Your task to perform on an android device: Open CNN.com Image 0: 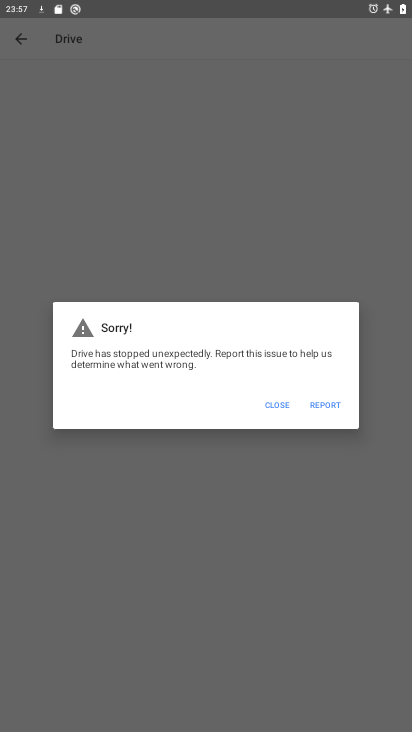
Step 0: press home button
Your task to perform on an android device: Open CNN.com Image 1: 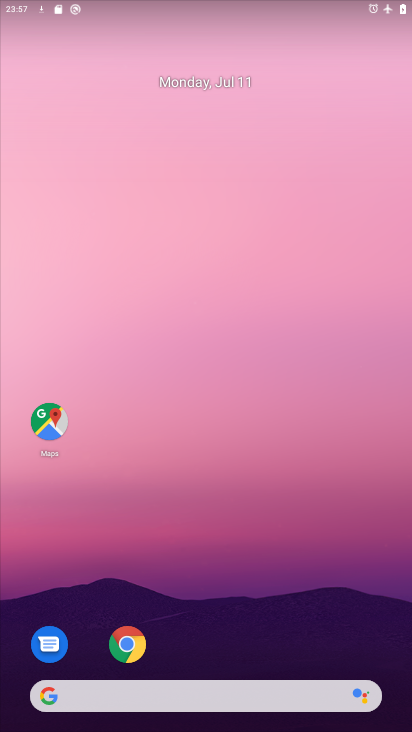
Step 1: drag from (243, 634) to (238, 126)
Your task to perform on an android device: Open CNN.com Image 2: 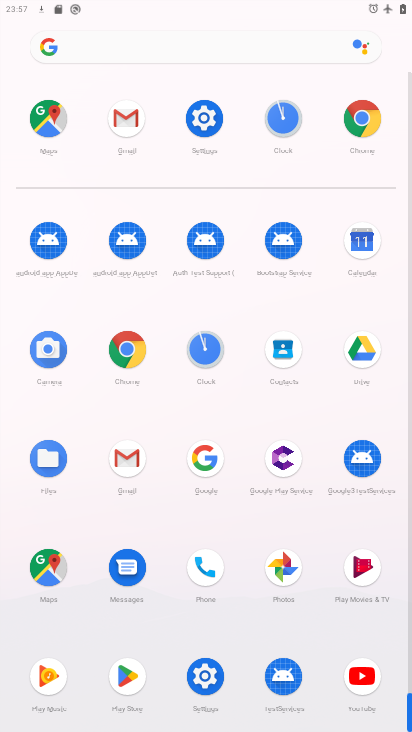
Step 2: click (358, 108)
Your task to perform on an android device: Open CNN.com Image 3: 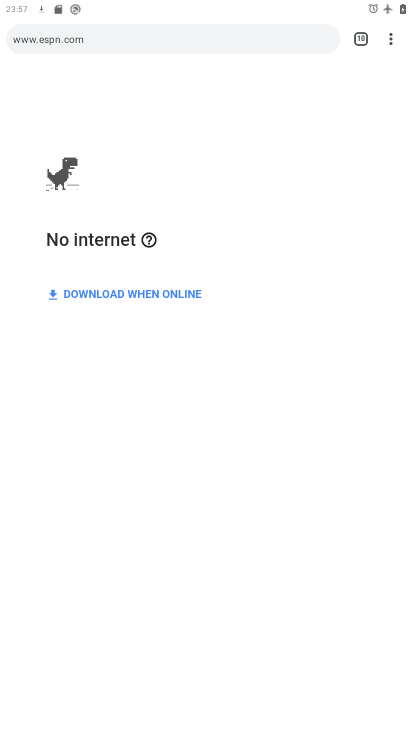
Step 3: click (388, 28)
Your task to perform on an android device: Open CNN.com Image 4: 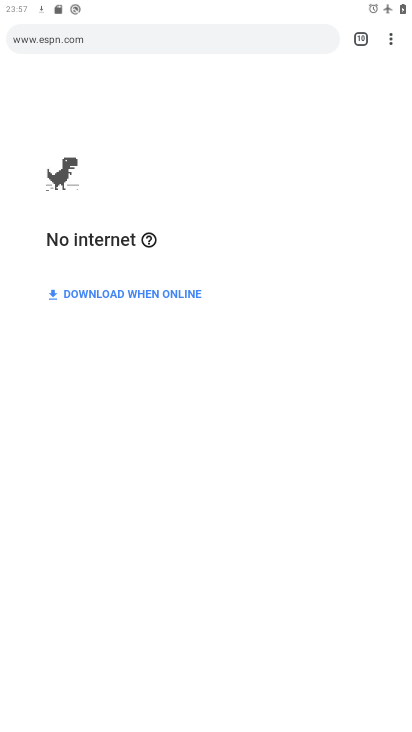
Step 4: click (399, 37)
Your task to perform on an android device: Open CNN.com Image 5: 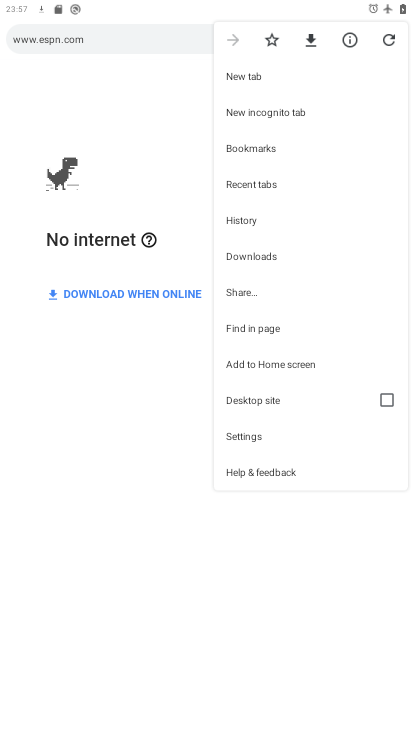
Step 5: click (278, 71)
Your task to perform on an android device: Open CNN.com Image 6: 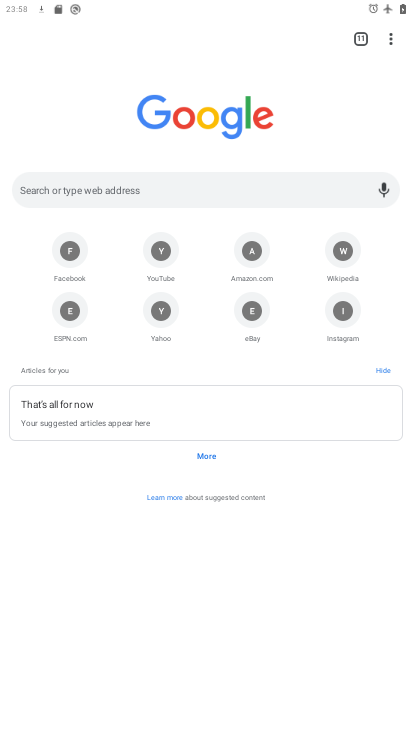
Step 6: click (113, 183)
Your task to perform on an android device: Open CNN.com Image 7: 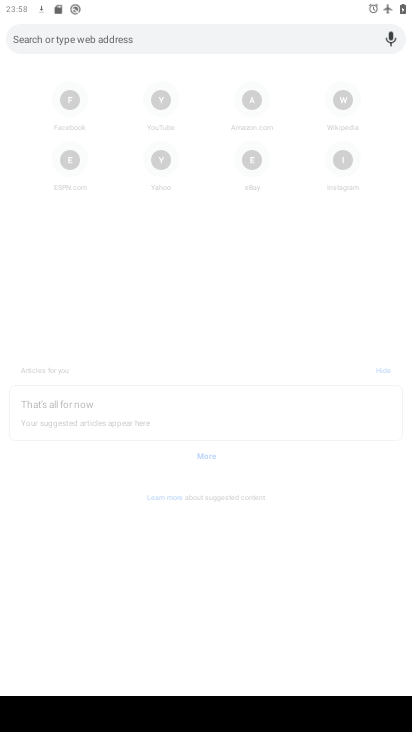
Step 7: type "CNN.com "
Your task to perform on an android device: Open CNN.com Image 8: 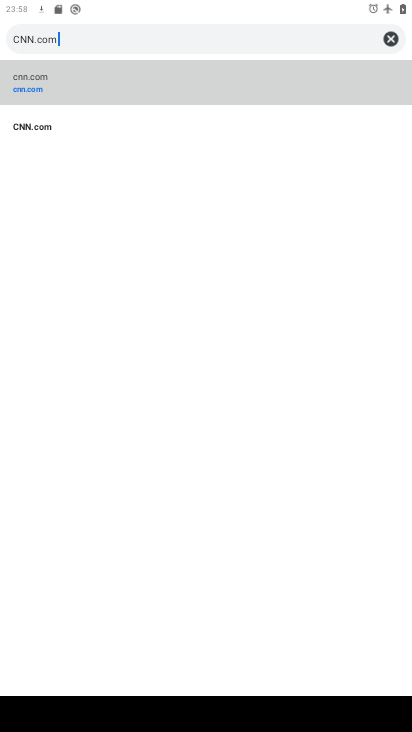
Step 8: click (59, 93)
Your task to perform on an android device: Open CNN.com Image 9: 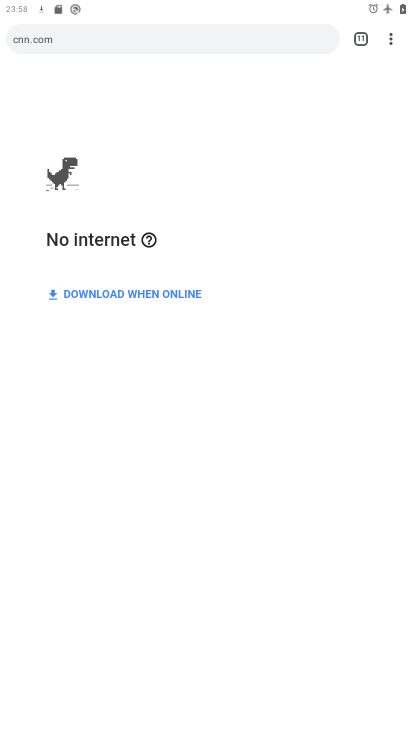
Step 9: task complete